Your task to perform on an android device: turn notification dots on Image 0: 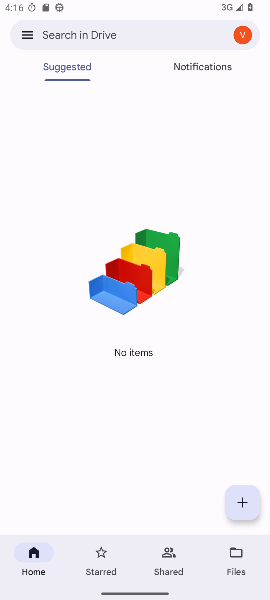
Step 0: press home button
Your task to perform on an android device: turn notification dots on Image 1: 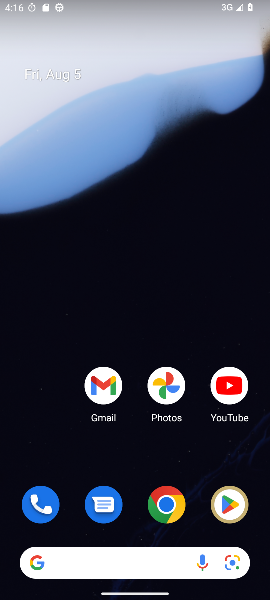
Step 1: click (87, 395)
Your task to perform on an android device: turn notification dots on Image 2: 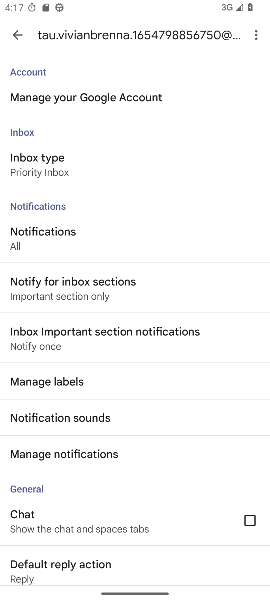
Step 2: click (20, 33)
Your task to perform on an android device: turn notification dots on Image 3: 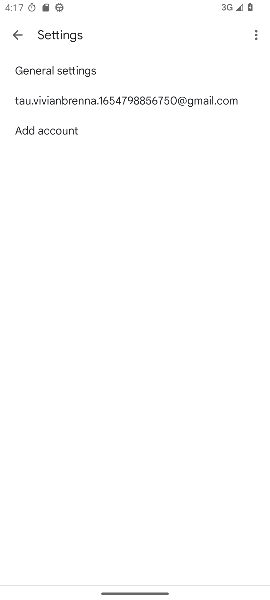
Step 3: press home button
Your task to perform on an android device: turn notification dots on Image 4: 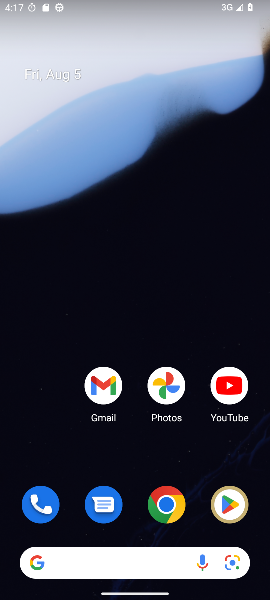
Step 4: click (122, 19)
Your task to perform on an android device: turn notification dots on Image 5: 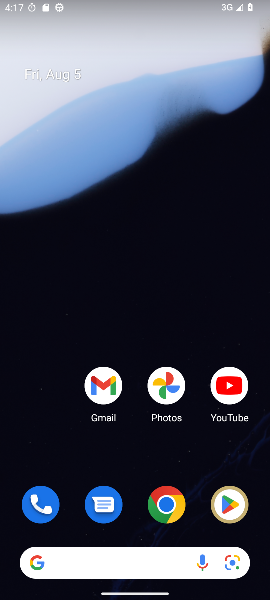
Step 5: drag from (127, 291) to (182, 35)
Your task to perform on an android device: turn notification dots on Image 6: 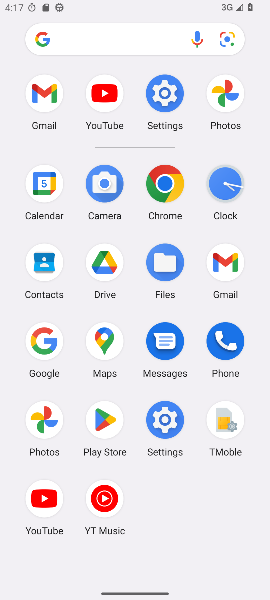
Step 6: click (148, 446)
Your task to perform on an android device: turn notification dots on Image 7: 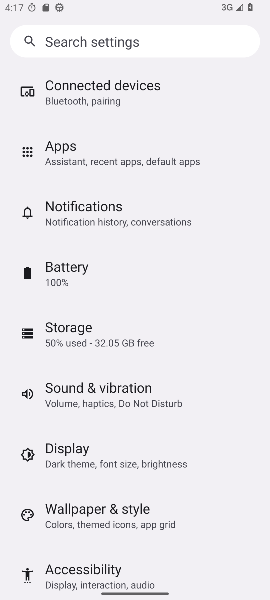
Step 7: click (107, 222)
Your task to perform on an android device: turn notification dots on Image 8: 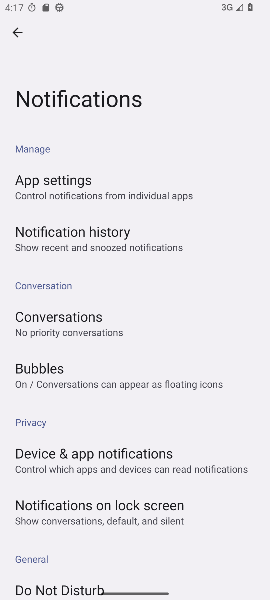
Step 8: task complete